Your task to perform on an android device: Go to sound settings Image 0: 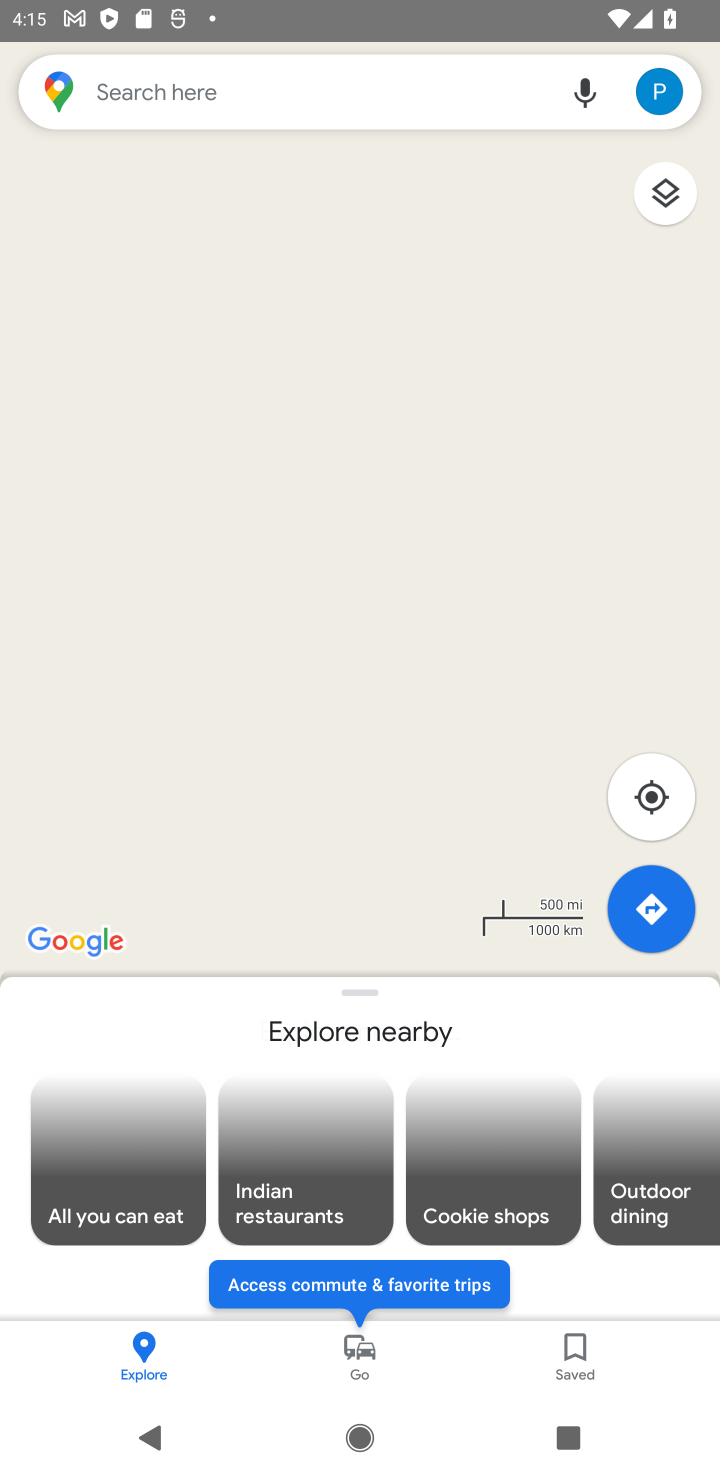
Step 0: press home button
Your task to perform on an android device: Go to sound settings Image 1: 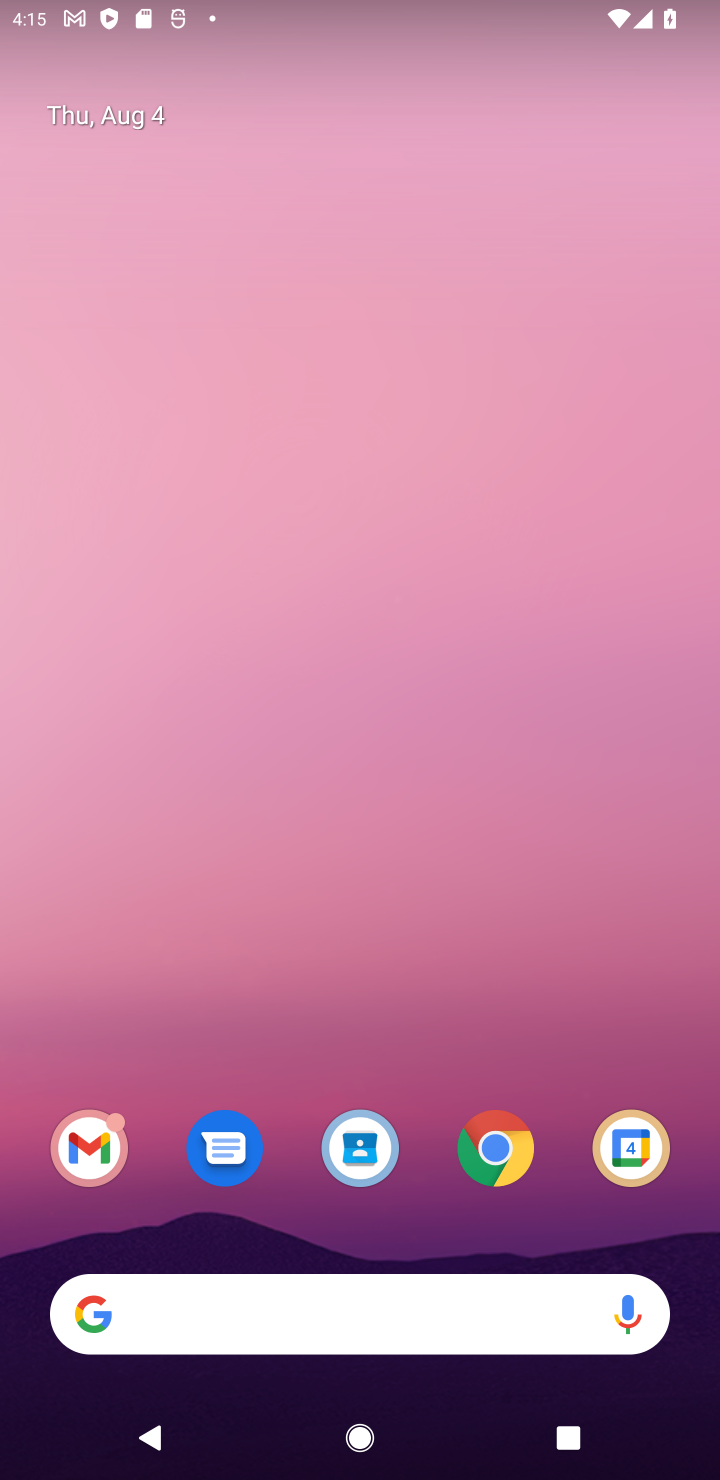
Step 1: drag from (567, 1245) to (534, 283)
Your task to perform on an android device: Go to sound settings Image 2: 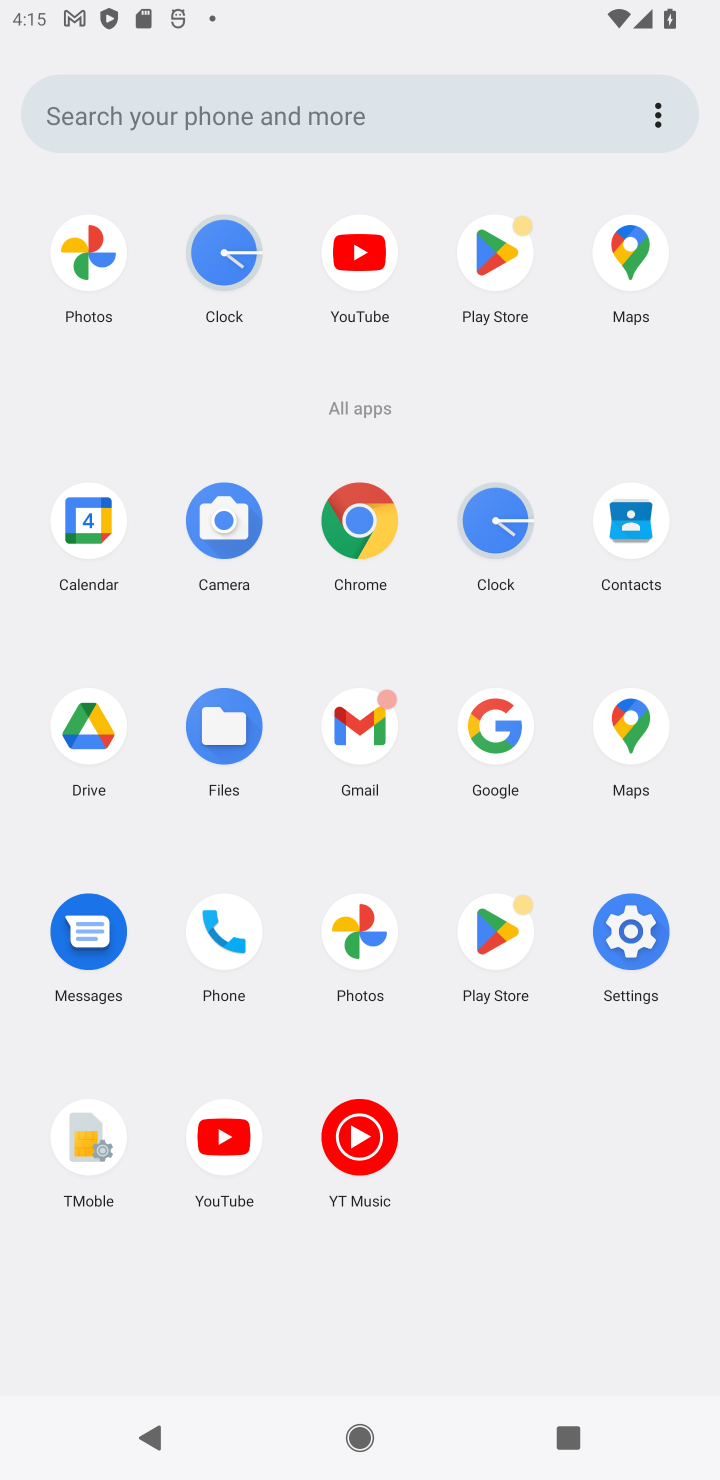
Step 2: click (620, 937)
Your task to perform on an android device: Go to sound settings Image 3: 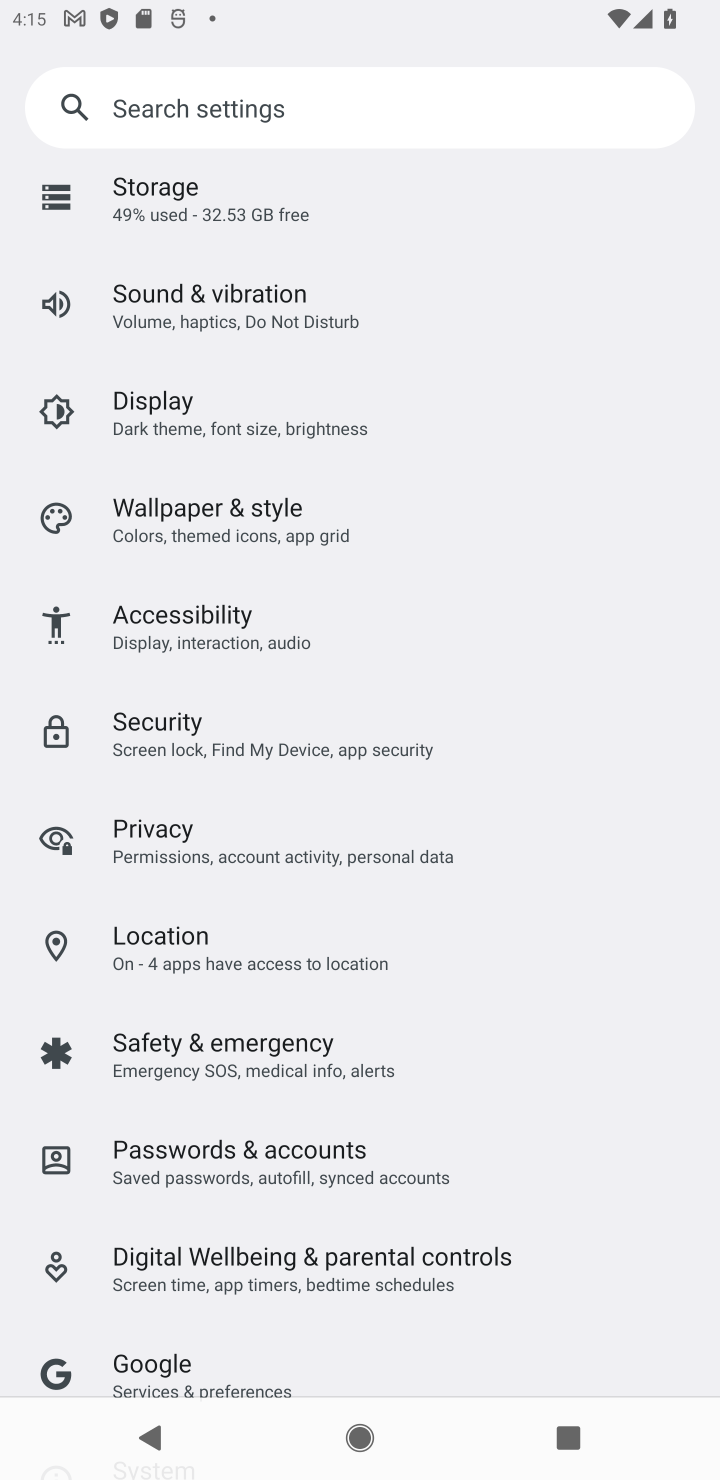
Step 3: drag from (491, 396) to (496, 631)
Your task to perform on an android device: Go to sound settings Image 4: 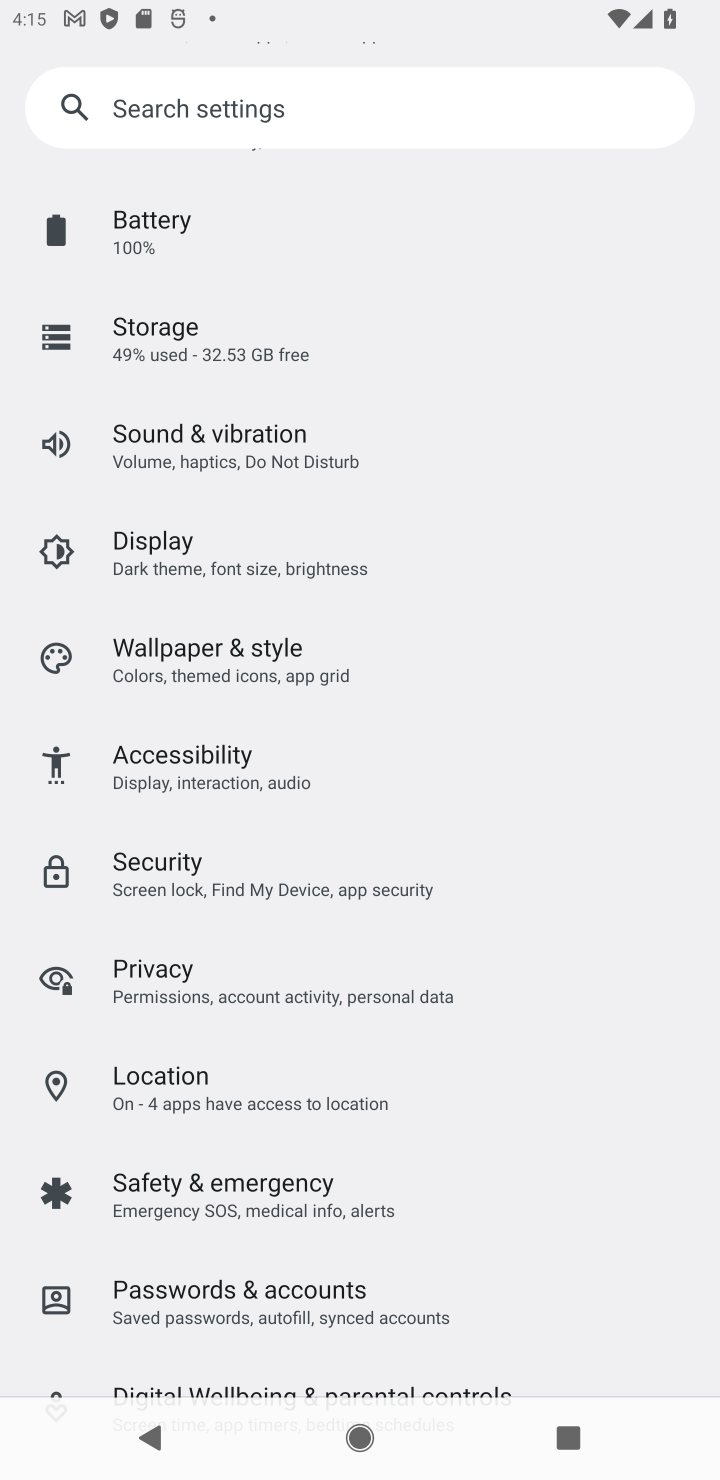
Step 4: click (139, 433)
Your task to perform on an android device: Go to sound settings Image 5: 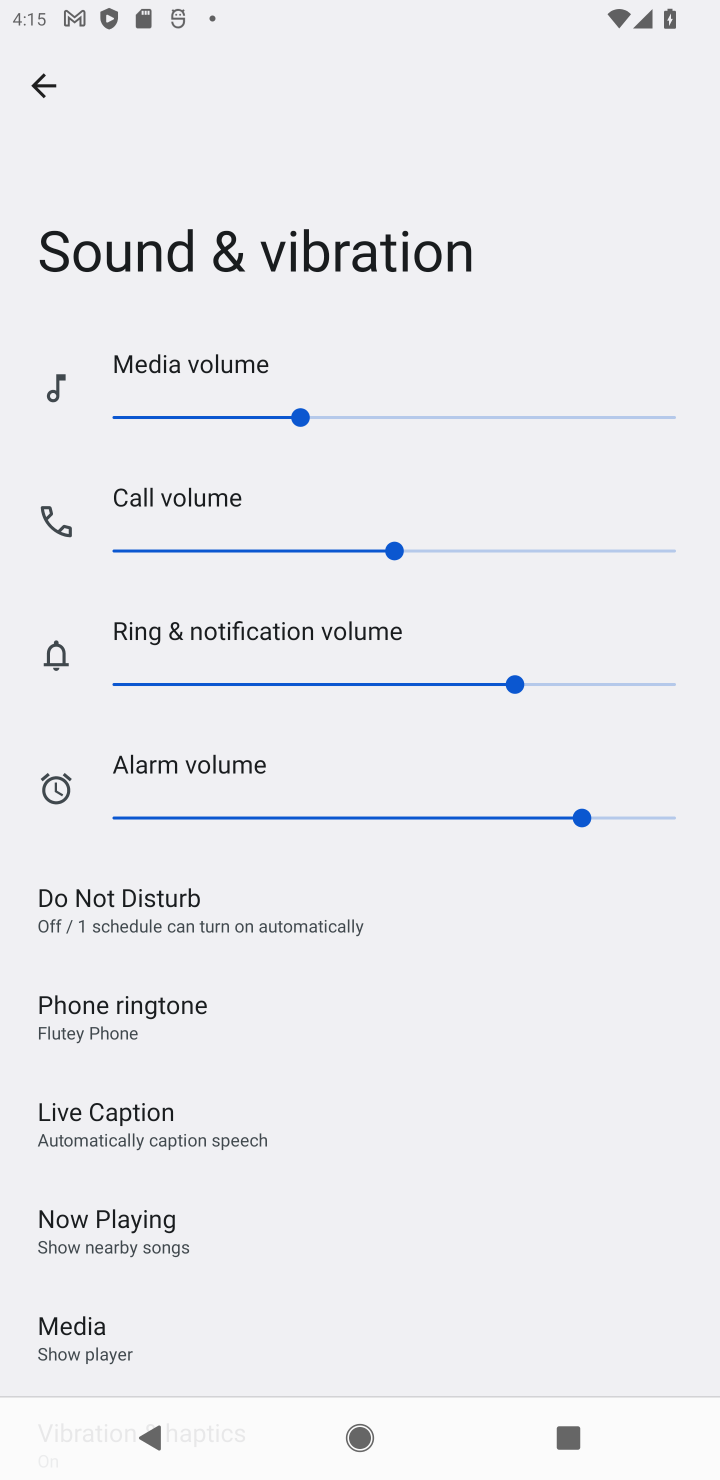
Step 5: task complete